Your task to perform on an android device: What is the recent news? Image 0: 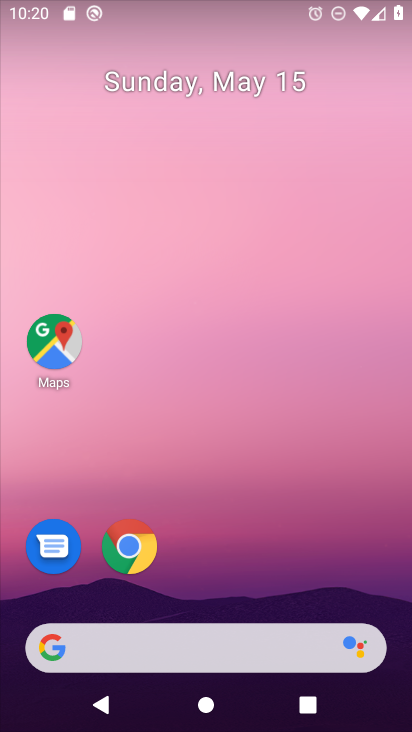
Step 0: click (134, 547)
Your task to perform on an android device: What is the recent news? Image 1: 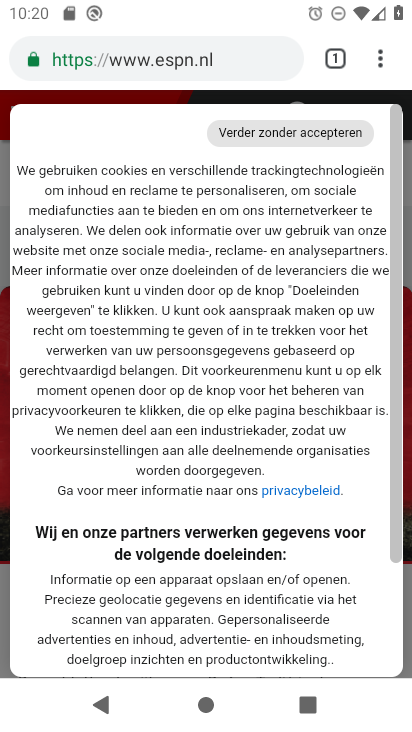
Step 1: click (215, 47)
Your task to perform on an android device: What is the recent news? Image 2: 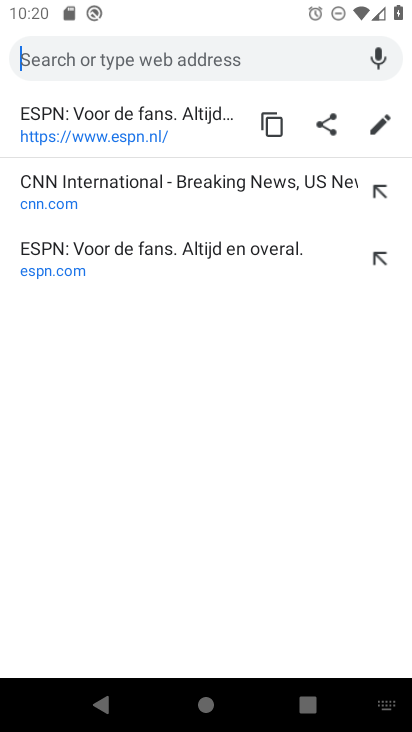
Step 2: type "news"
Your task to perform on an android device: What is the recent news? Image 3: 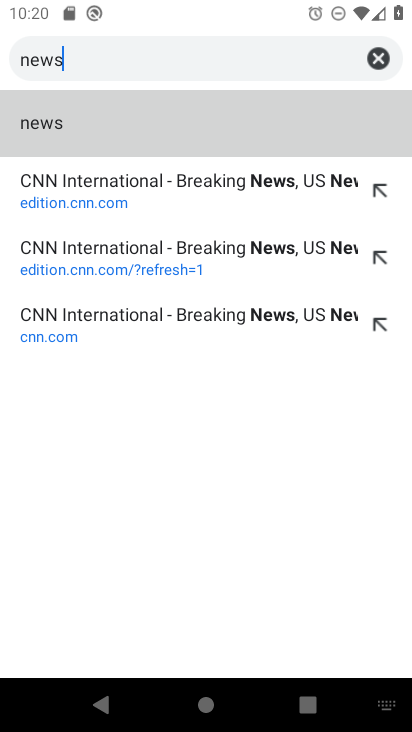
Step 3: click (35, 134)
Your task to perform on an android device: What is the recent news? Image 4: 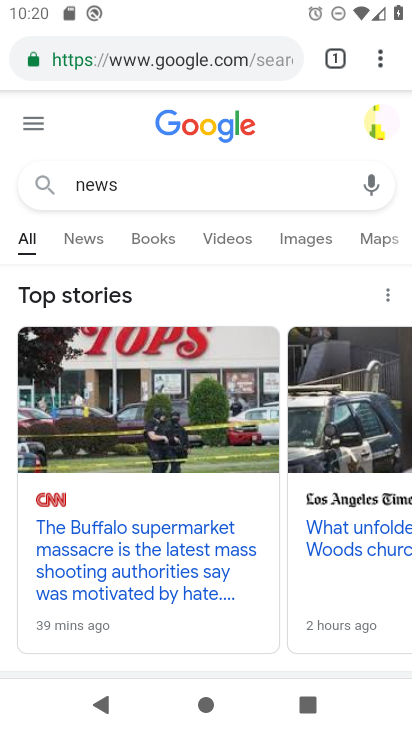
Step 4: click (88, 240)
Your task to perform on an android device: What is the recent news? Image 5: 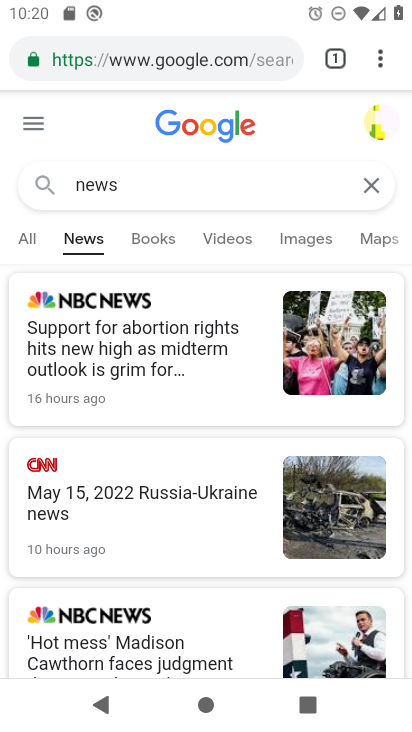
Step 5: task complete